Your task to perform on an android device: change alarm snooze length Image 0: 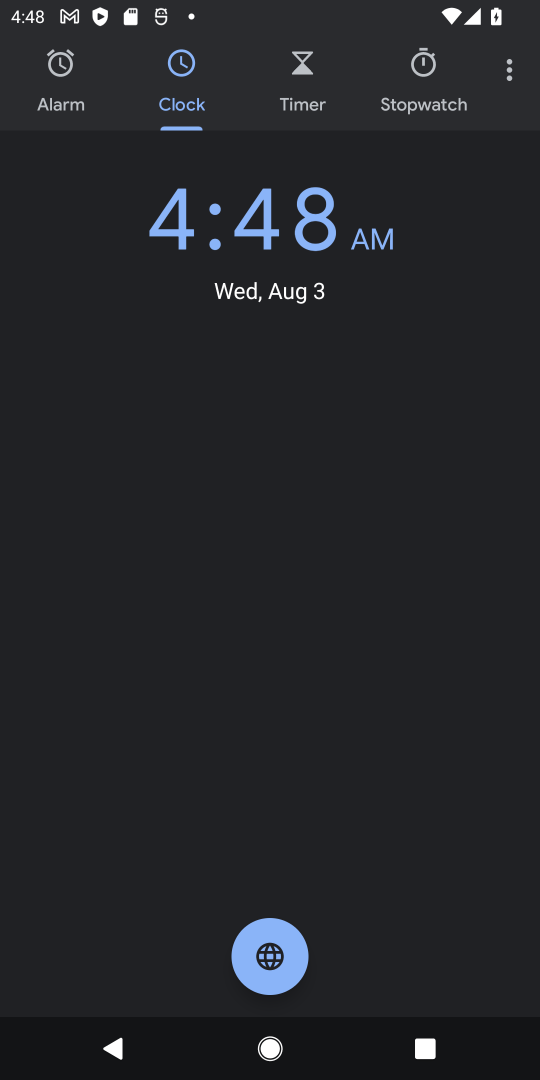
Step 0: click (488, 68)
Your task to perform on an android device: change alarm snooze length Image 1: 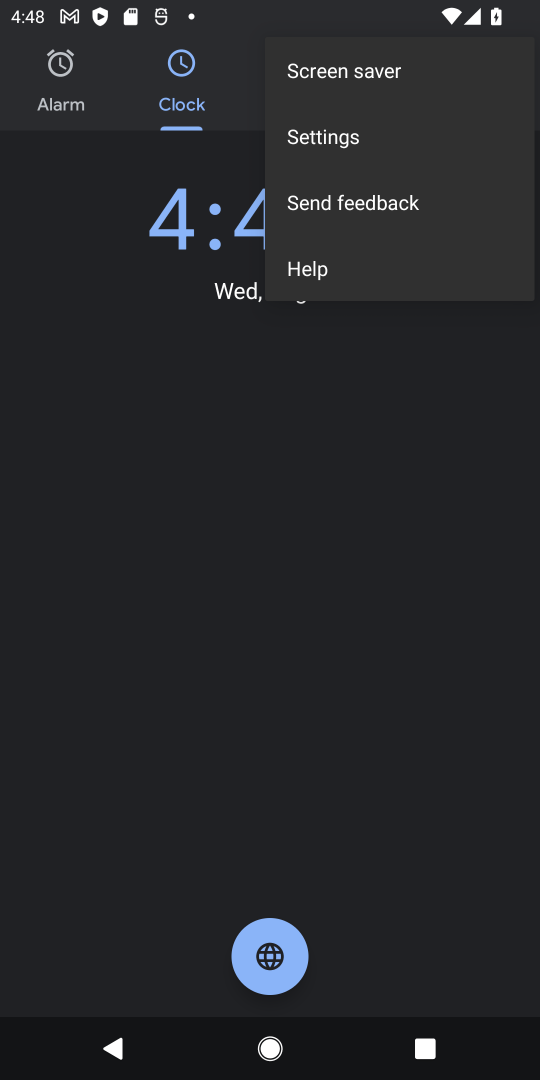
Step 1: click (337, 110)
Your task to perform on an android device: change alarm snooze length Image 2: 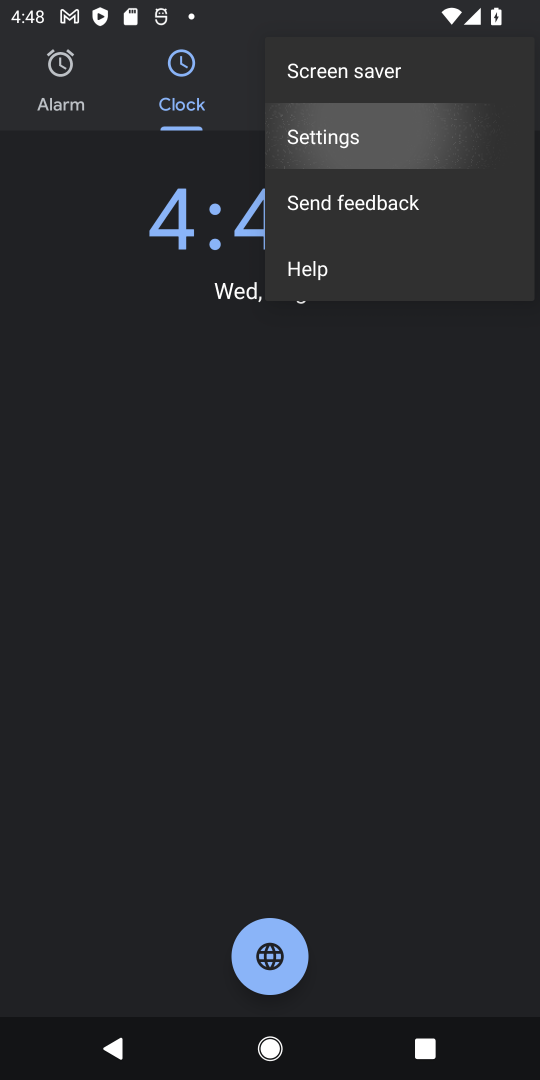
Step 2: click (337, 132)
Your task to perform on an android device: change alarm snooze length Image 3: 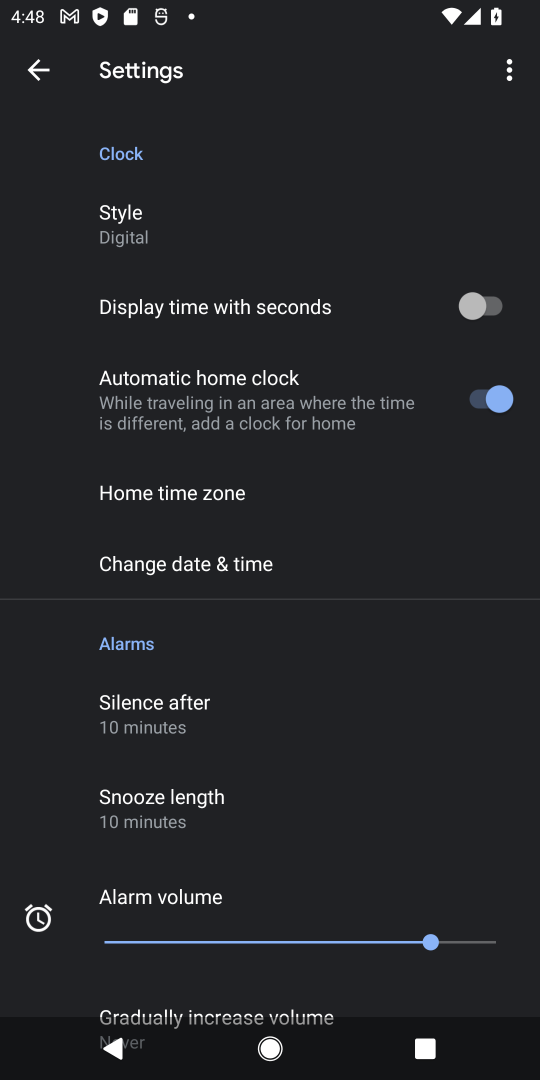
Step 3: click (191, 787)
Your task to perform on an android device: change alarm snooze length Image 4: 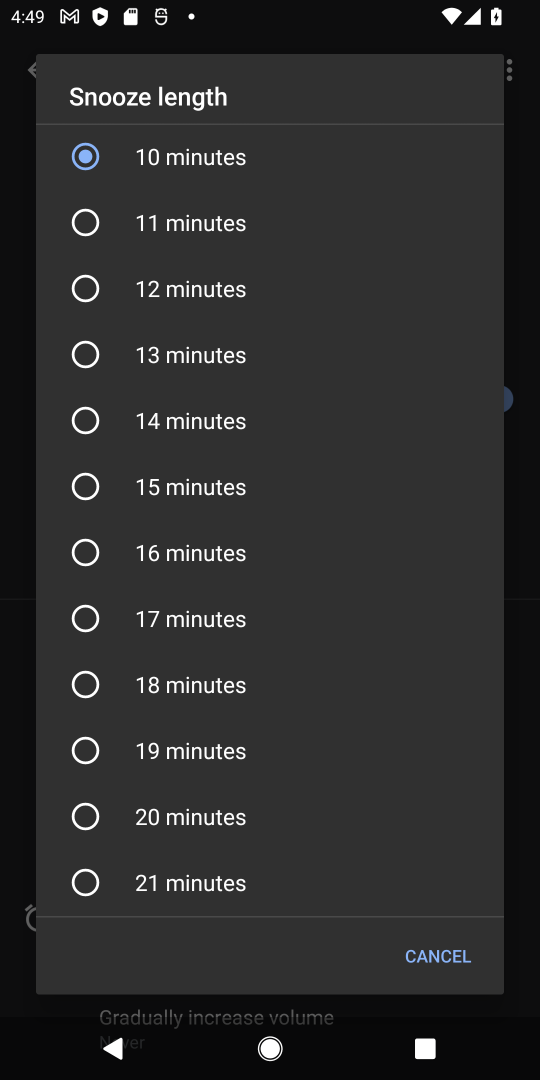
Step 4: click (110, 225)
Your task to perform on an android device: change alarm snooze length Image 5: 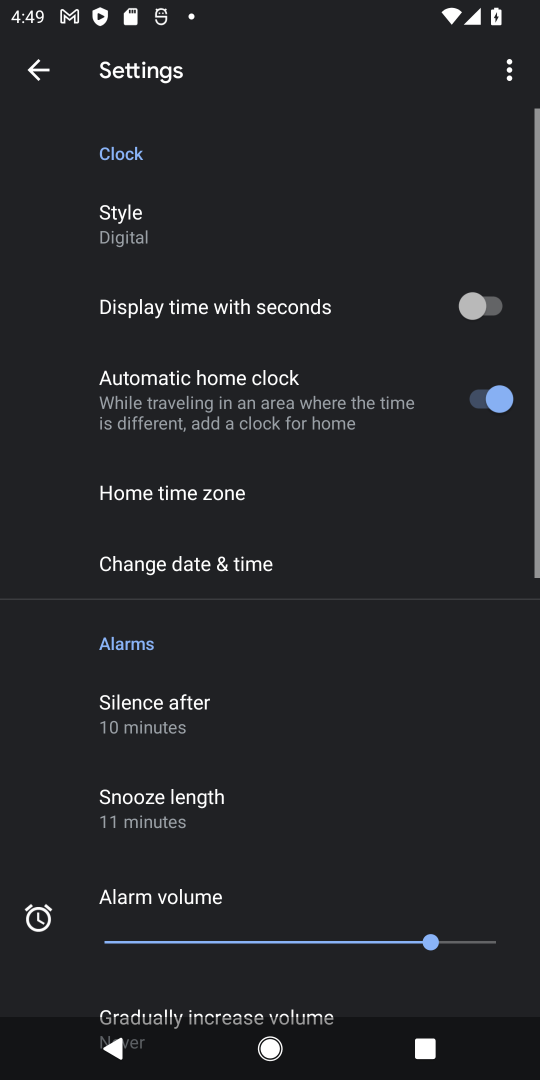
Step 5: task complete